Your task to perform on an android device: Go to Maps Image 0: 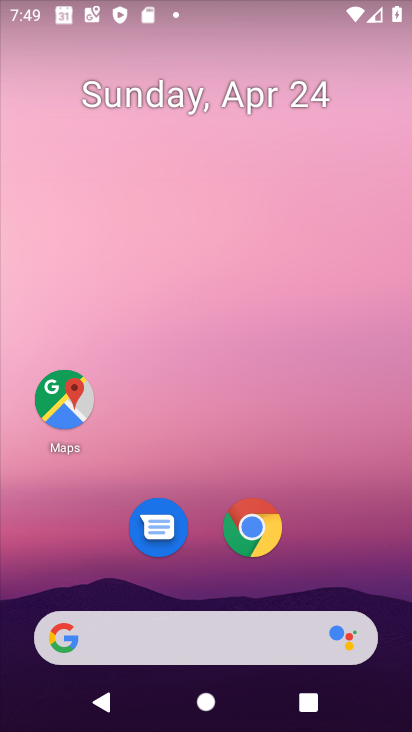
Step 0: drag from (393, 604) to (256, 12)
Your task to perform on an android device: Go to Maps Image 1: 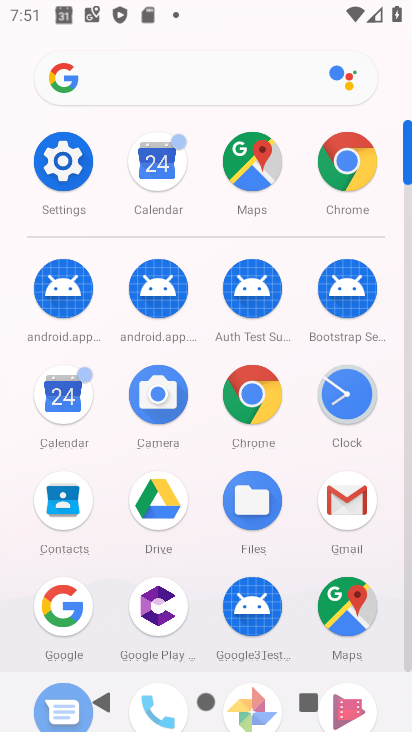
Step 1: click (341, 610)
Your task to perform on an android device: Go to Maps Image 2: 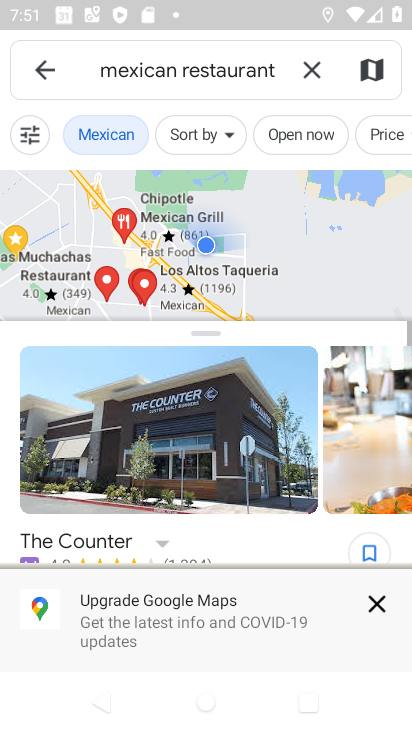
Step 2: click (312, 76)
Your task to perform on an android device: Go to Maps Image 3: 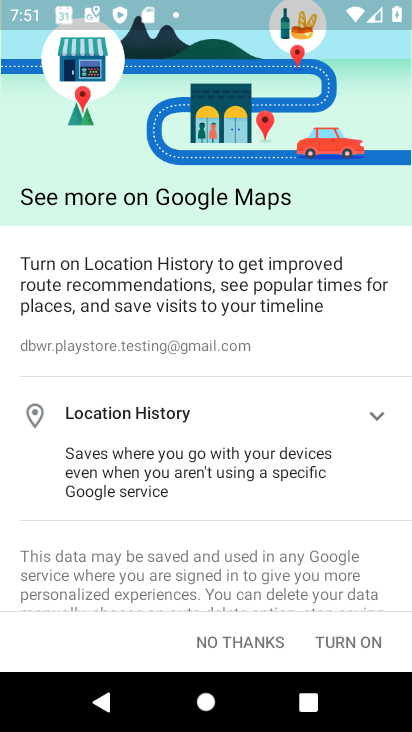
Step 3: click (227, 655)
Your task to perform on an android device: Go to Maps Image 4: 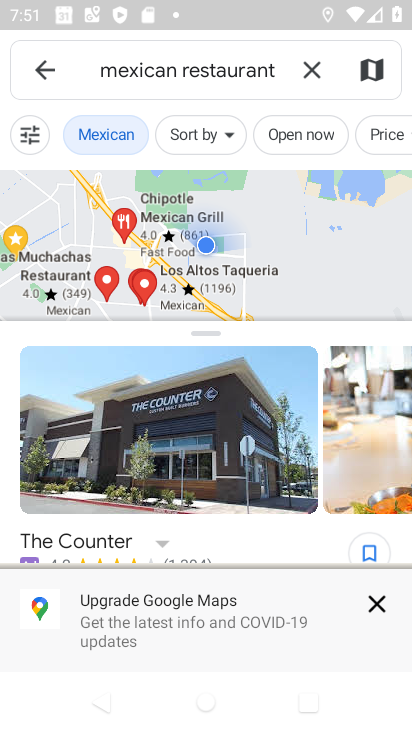
Step 4: click (317, 62)
Your task to perform on an android device: Go to Maps Image 5: 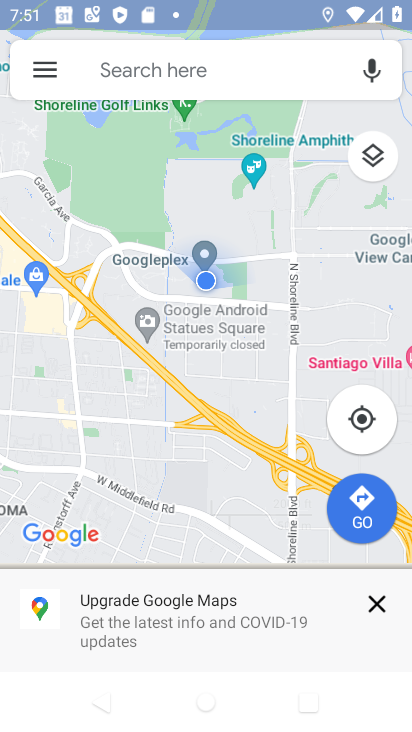
Step 5: task complete